Your task to perform on an android device: Open a new private tab in Chrome Image 0: 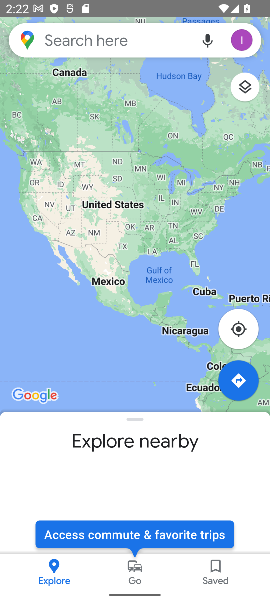
Step 0: press home button
Your task to perform on an android device: Open a new private tab in Chrome Image 1: 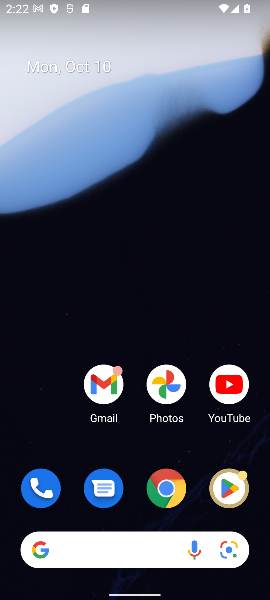
Step 1: click (175, 482)
Your task to perform on an android device: Open a new private tab in Chrome Image 2: 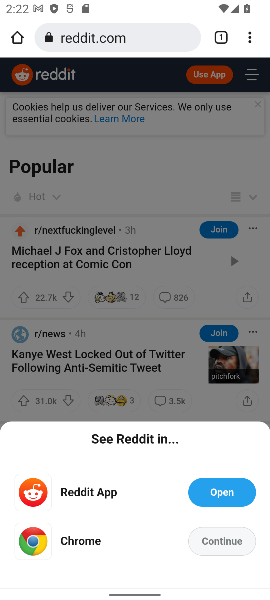
Step 2: click (249, 43)
Your task to perform on an android device: Open a new private tab in Chrome Image 3: 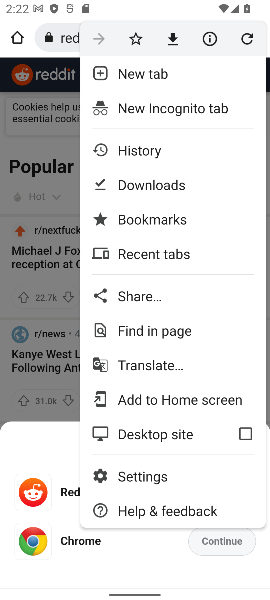
Step 3: click (179, 78)
Your task to perform on an android device: Open a new private tab in Chrome Image 4: 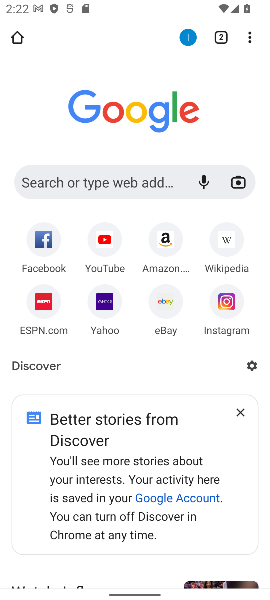
Step 4: task complete